Your task to perform on an android device: Go to Google Image 0: 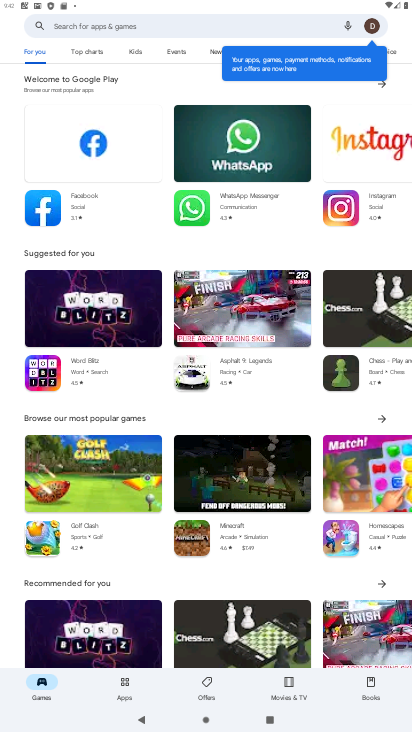
Step 0: press home button
Your task to perform on an android device: Go to Google Image 1: 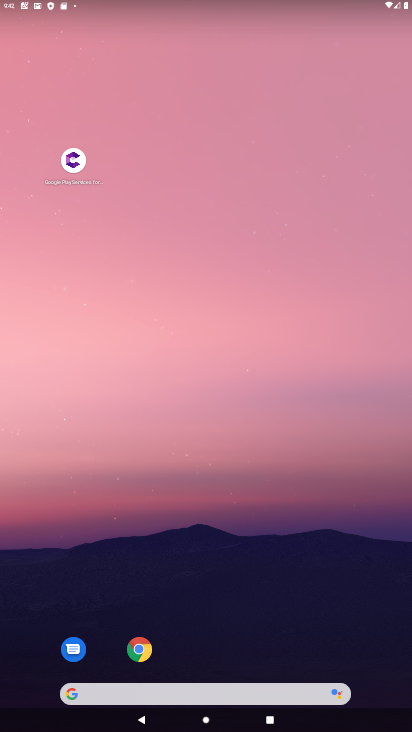
Step 1: drag from (177, 616) to (233, 10)
Your task to perform on an android device: Go to Google Image 2: 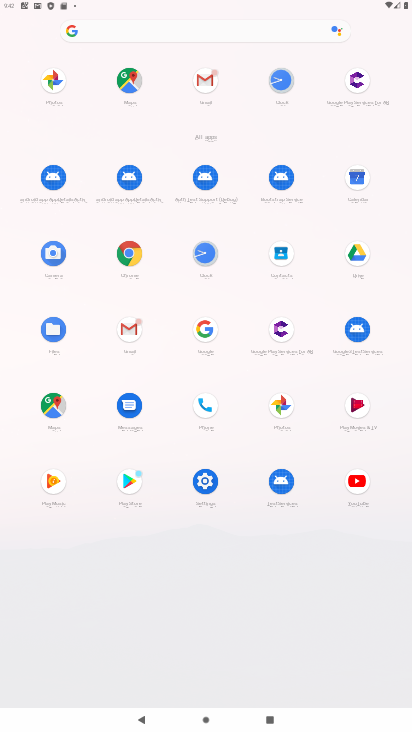
Step 2: click (206, 336)
Your task to perform on an android device: Go to Google Image 3: 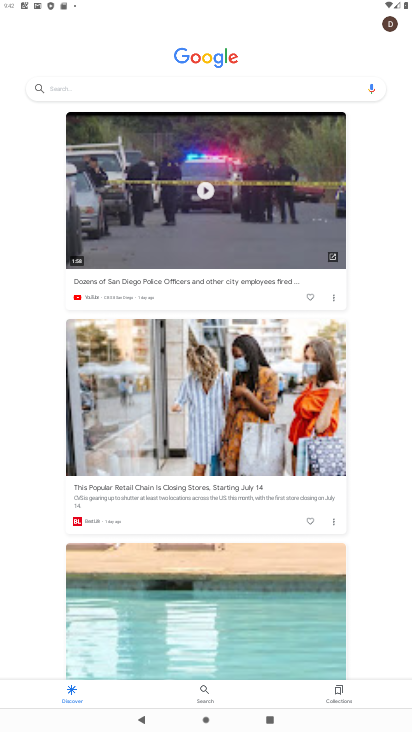
Step 3: task complete